Your task to perform on an android device: Open calendar and show me the first week of next month Image 0: 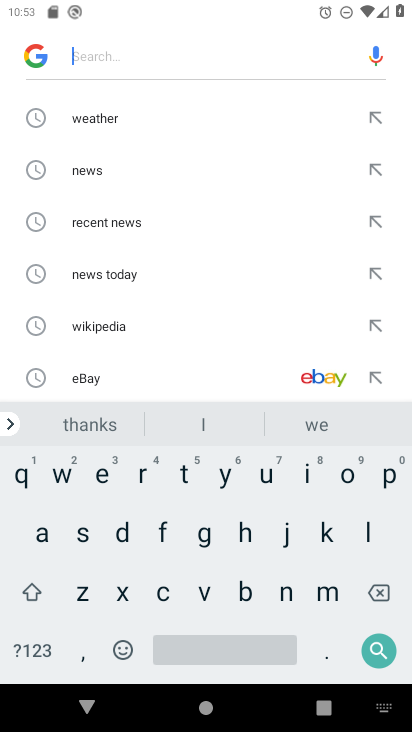
Step 0: press home button
Your task to perform on an android device: Open calendar and show me the first week of next month Image 1: 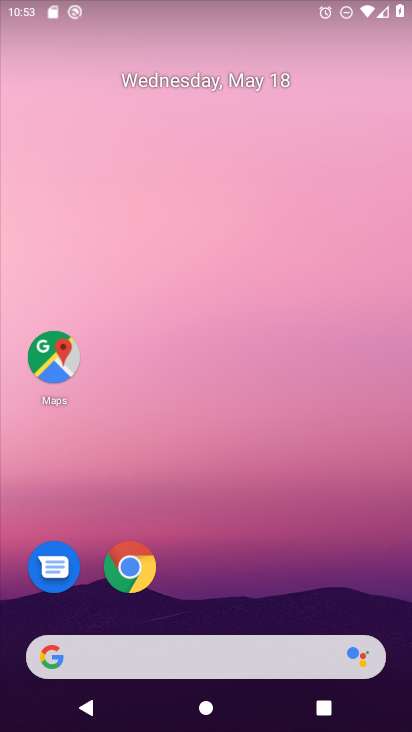
Step 1: drag from (244, 646) to (300, 112)
Your task to perform on an android device: Open calendar and show me the first week of next month Image 2: 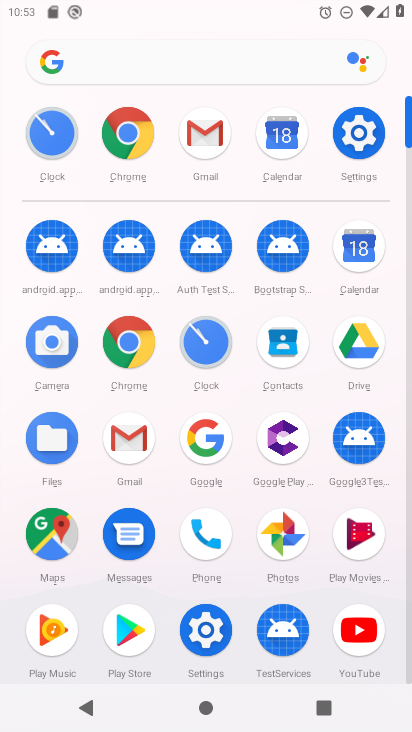
Step 2: click (358, 255)
Your task to perform on an android device: Open calendar and show me the first week of next month Image 3: 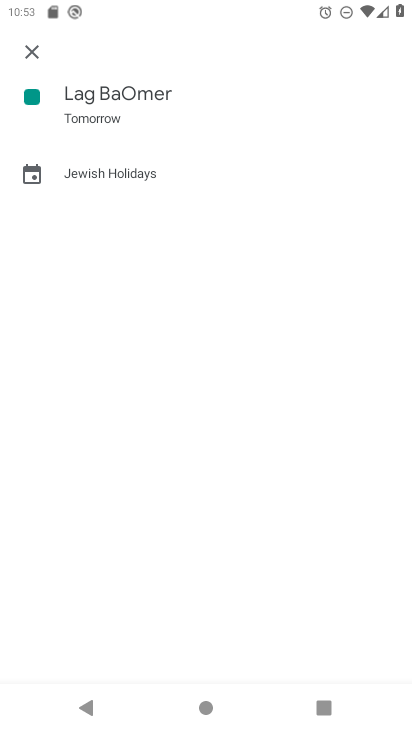
Step 3: click (30, 57)
Your task to perform on an android device: Open calendar and show me the first week of next month Image 4: 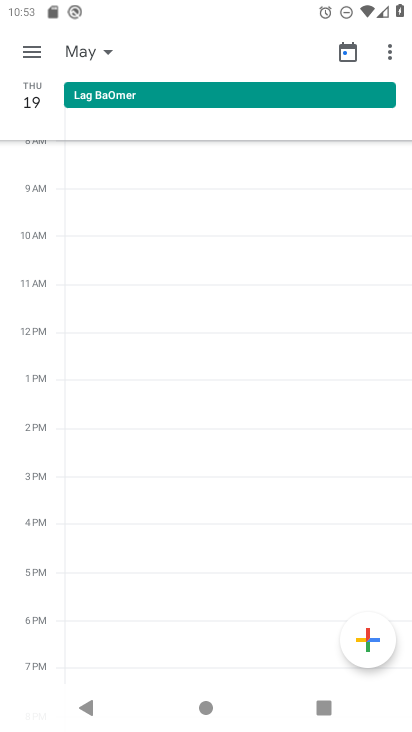
Step 4: click (23, 62)
Your task to perform on an android device: Open calendar and show me the first week of next month Image 5: 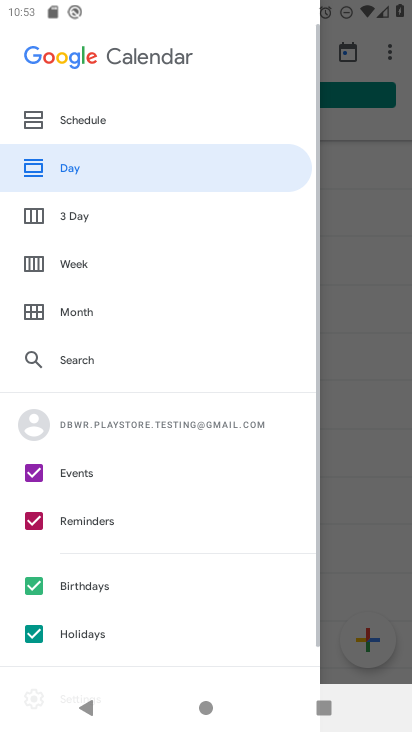
Step 5: click (93, 305)
Your task to perform on an android device: Open calendar and show me the first week of next month Image 6: 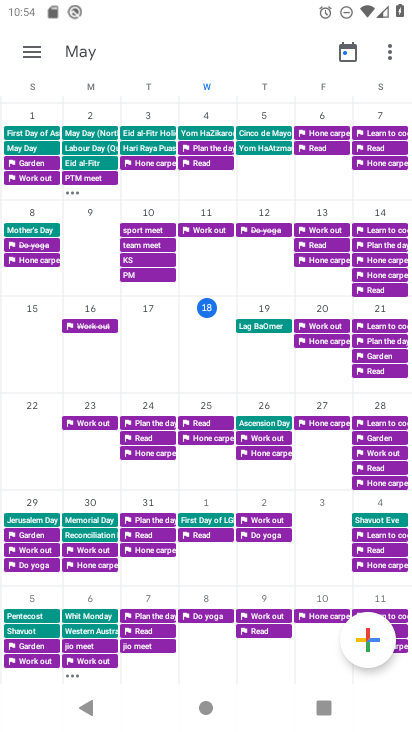
Step 6: drag from (342, 398) to (2, 347)
Your task to perform on an android device: Open calendar and show me the first week of next month Image 7: 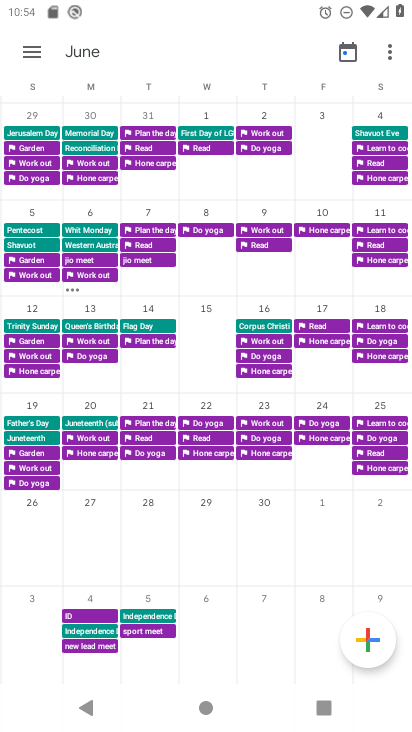
Step 7: click (205, 137)
Your task to perform on an android device: Open calendar and show me the first week of next month Image 8: 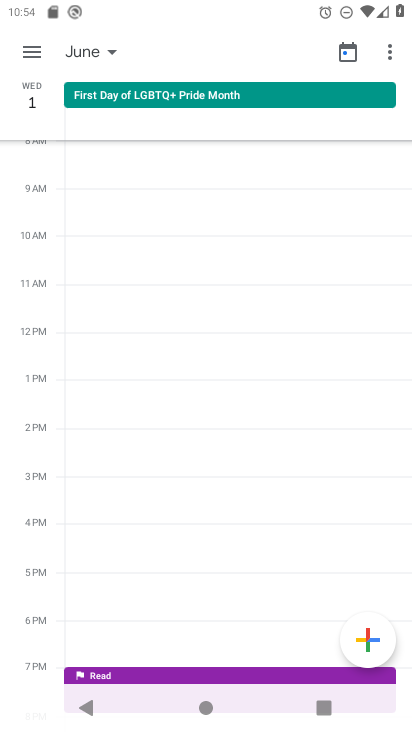
Step 8: task complete